Your task to perform on an android device: open app "Adobe Acrobat Reader: Edit PDF" Image 0: 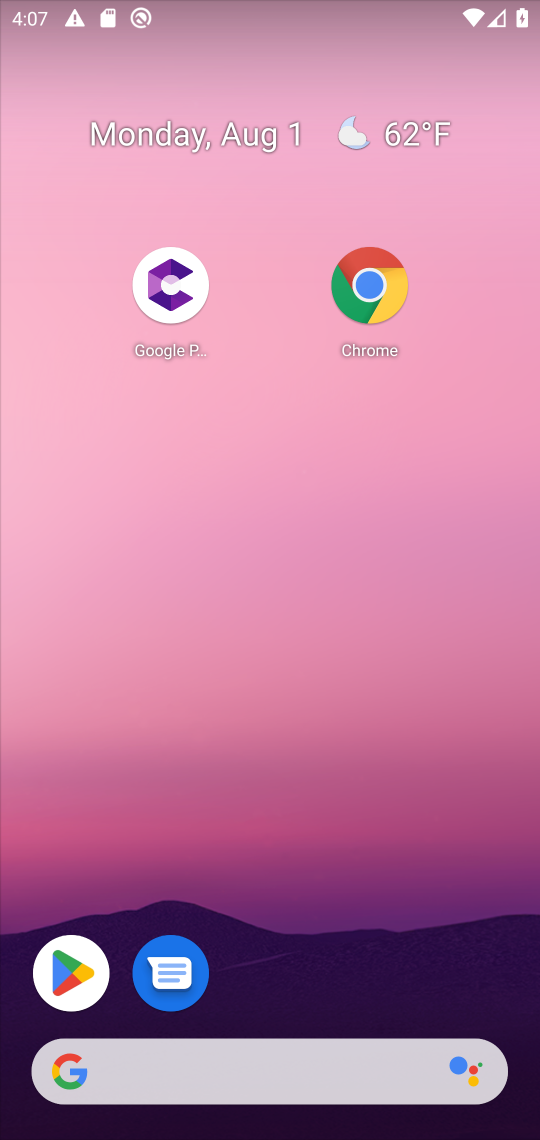
Step 0: drag from (381, 935) to (296, 213)
Your task to perform on an android device: open app "Adobe Acrobat Reader: Edit PDF" Image 1: 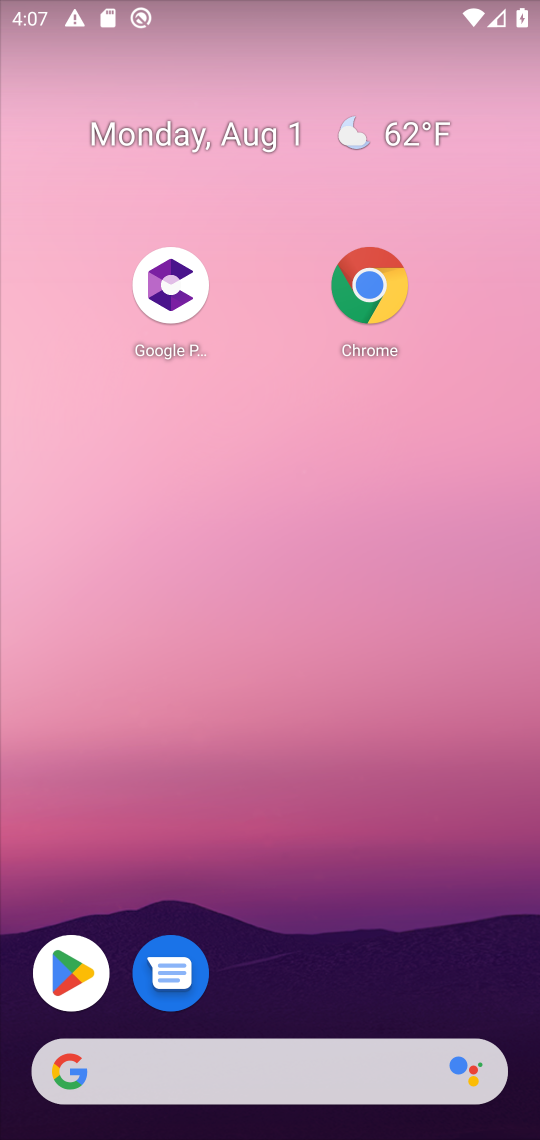
Step 1: drag from (319, 24) to (223, 329)
Your task to perform on an android device: open app "Adobe Acrobat Reader: Edit PDF" Image 2: 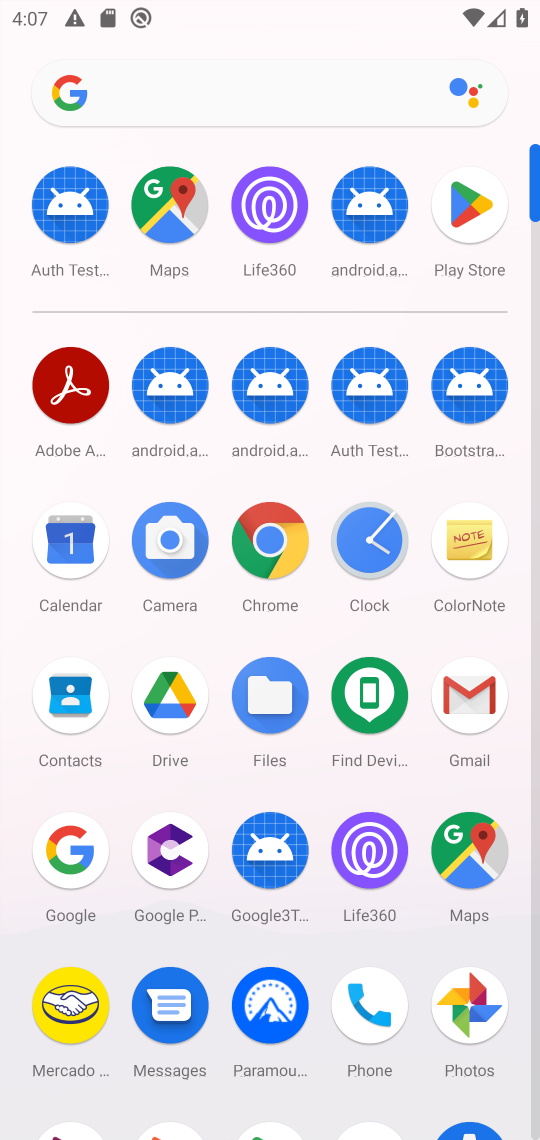
Step 2: click (478, 197)
Your task to perform on an android device: open app "Adobe Acrobat Reader: Edit PDF" Image 3: 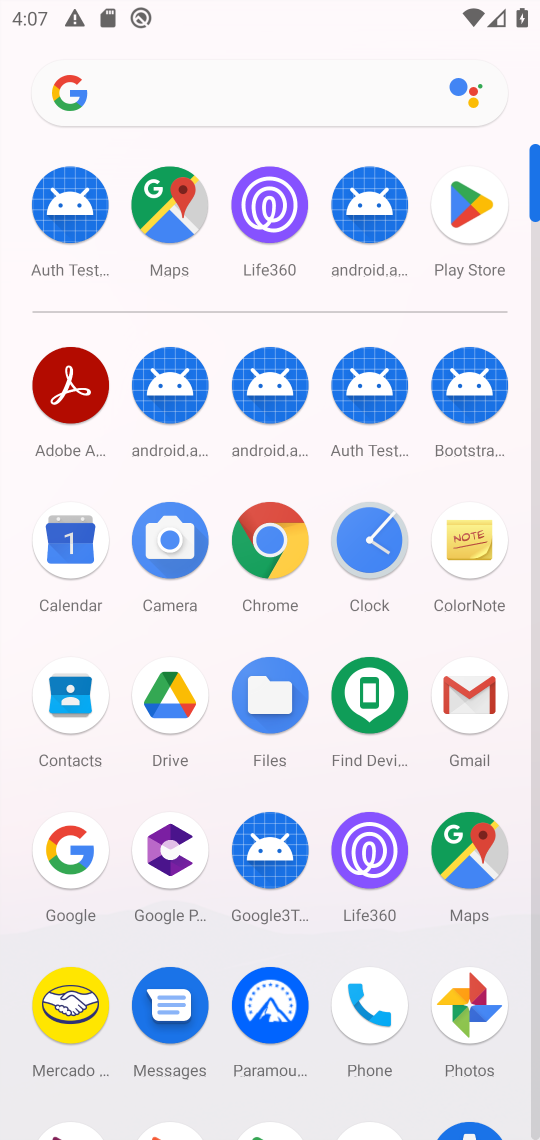
Step 3: click (480, 196)
Your task to perform on an android device: open app "Adobe Acrobat Reader: Edit PDF" Image 4: 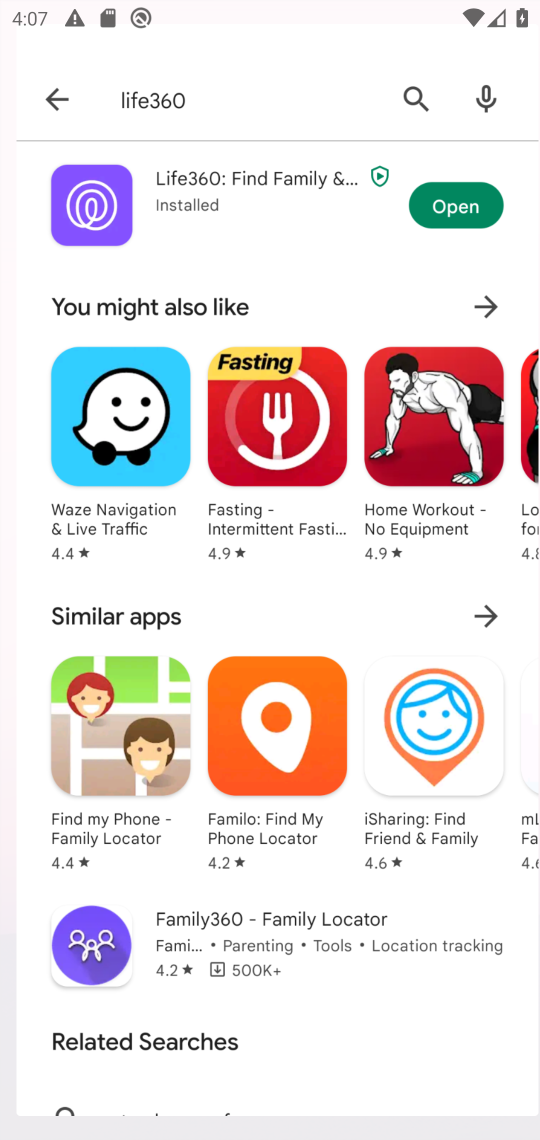
Step 4: click (470, 196)
Your task to perform on an android device: open app "Adobe Acrobat Reader: Edit PDF" Image 5: 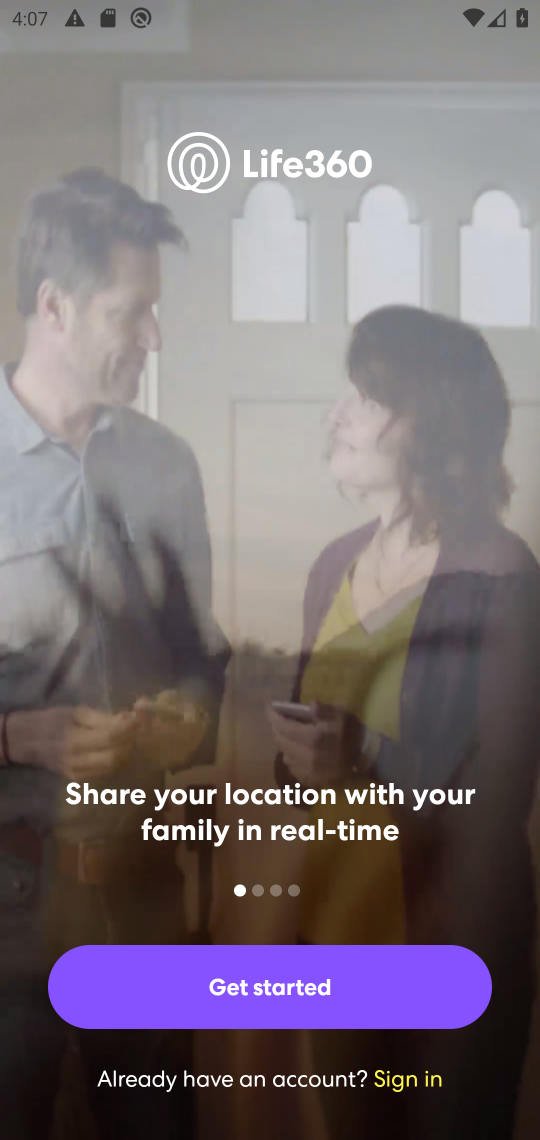
Step 5: press back button
Your task to perform on an android device: open app "Adobe Acrobat Reader: Edit PDF" Image 6: 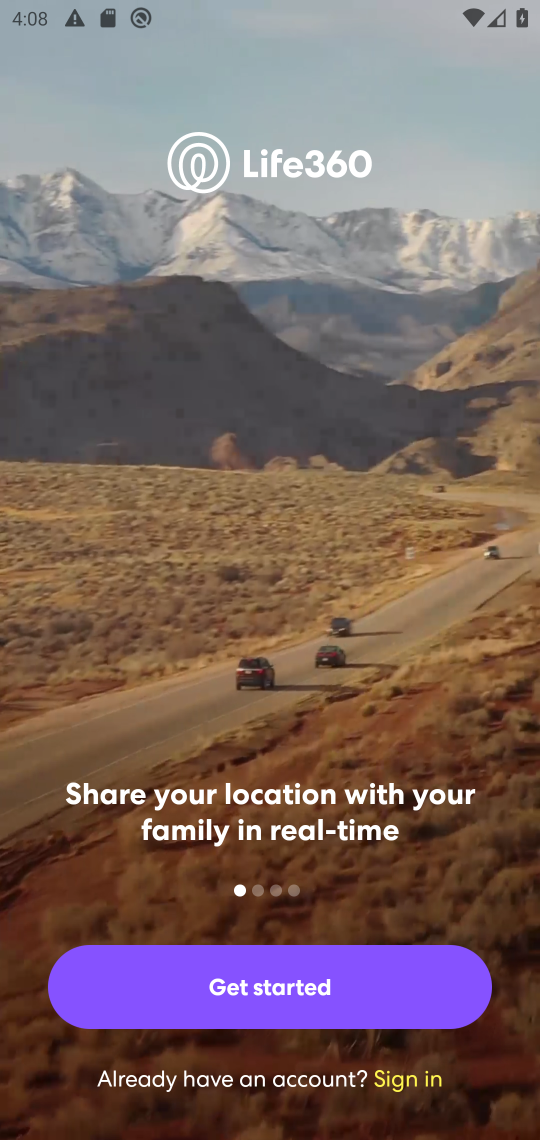
Step 6: press back button
Your task to perform on an android device: open app "Adobe Acrobat Reader: Edit PDF" Image 7: 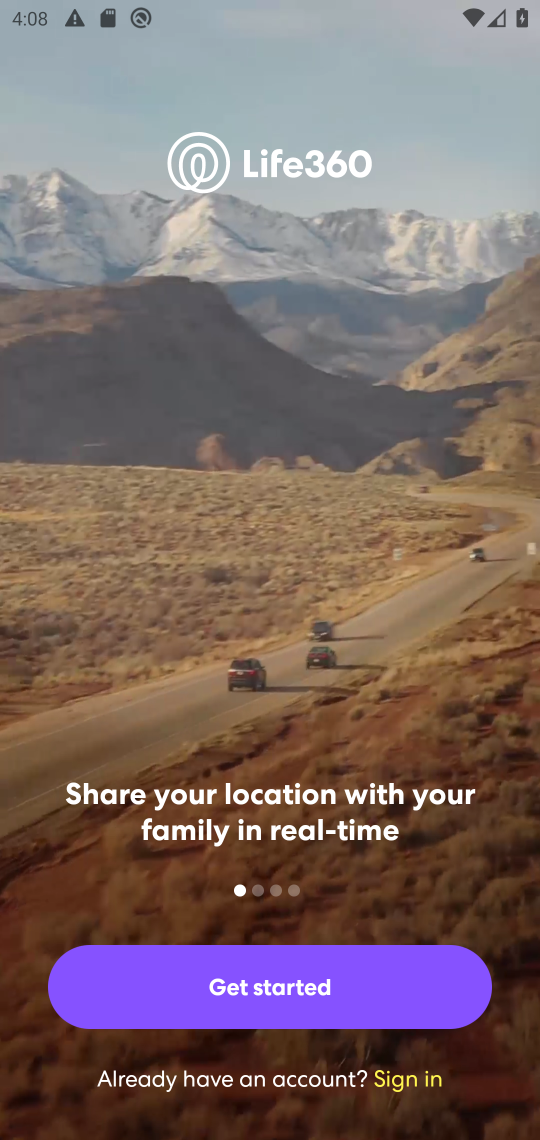
Step 7: press home button
Your task to perform on an android device: open app "Adobe Acrobat Reader: Edit PDF" Image 8: 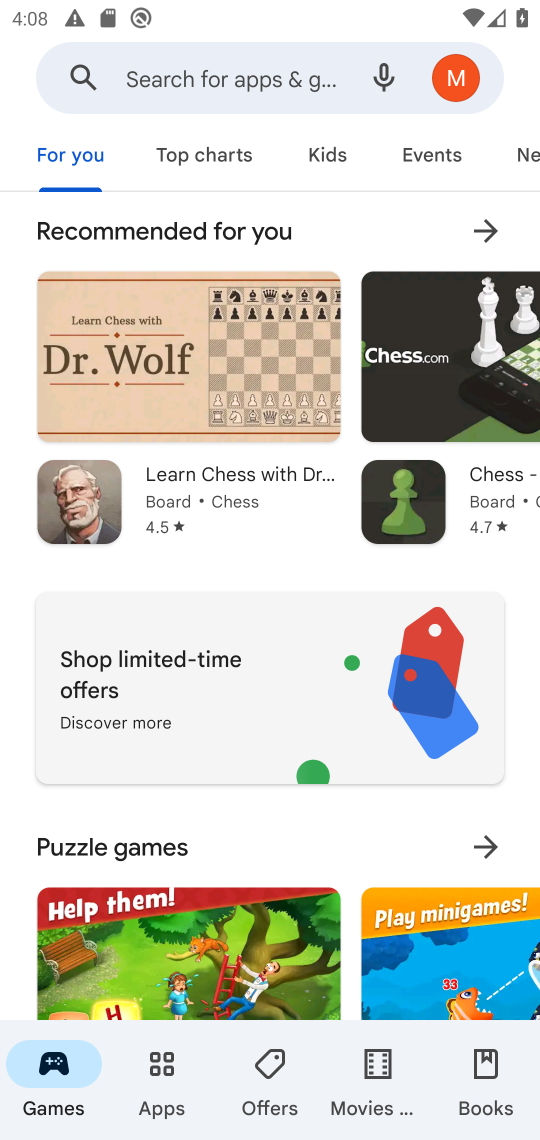
Step 8: press back button
Your task to perform on an android device: open app "Adobe Acrobat Reader: Edit PDF" Image 9: 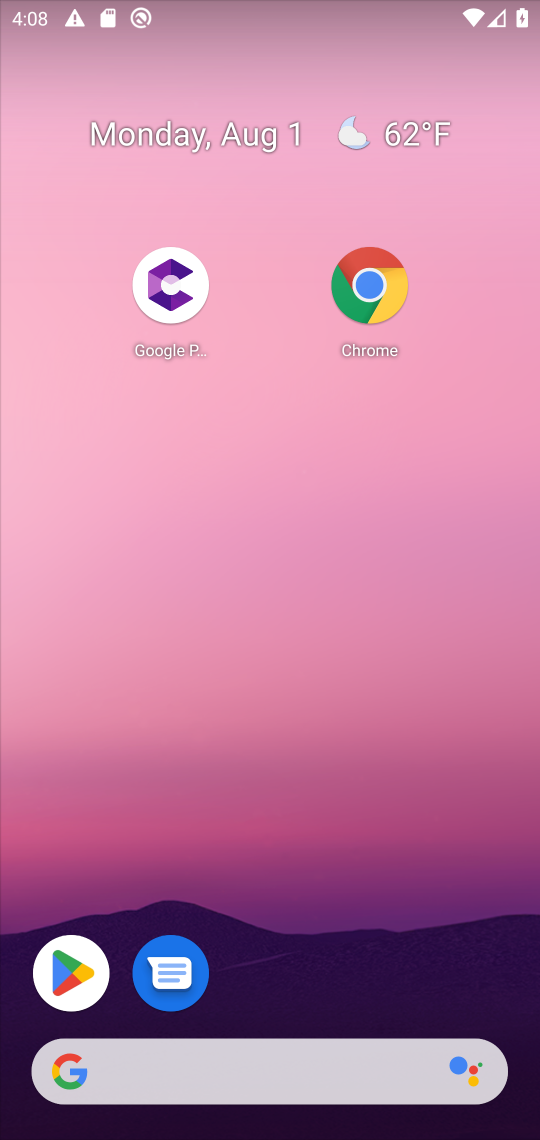
Step 9: press back button
Your task to perform on an android device: open app "Adobe Acrobat Reader: Edit PDF" Image 10: 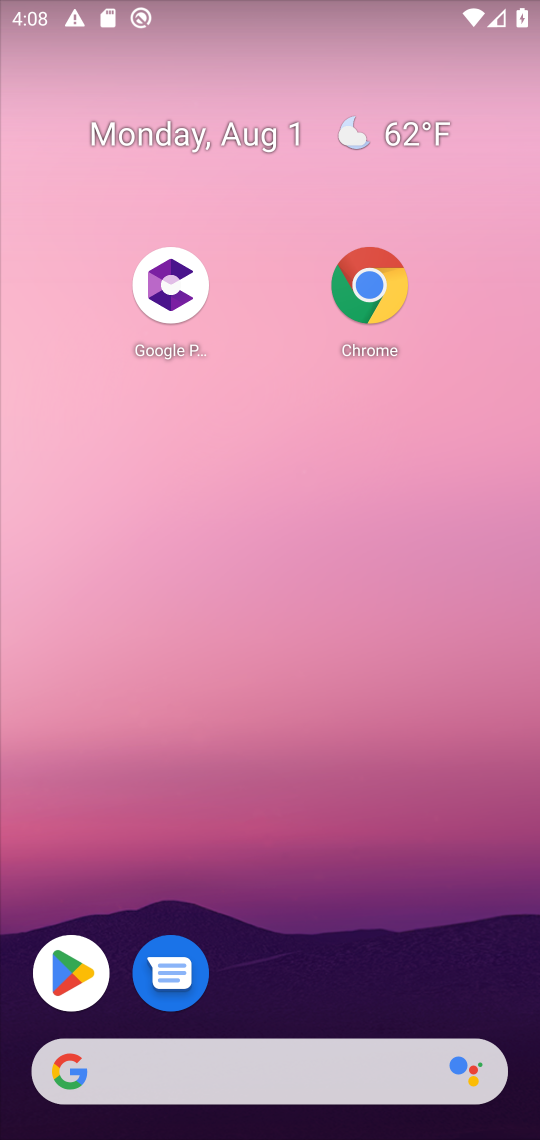
Step 10: drag from (199, 811) to (266, 125)
Your task to perform on an android device: open app "Adobe Acrobat Reader: Edit PDF" Image 11: 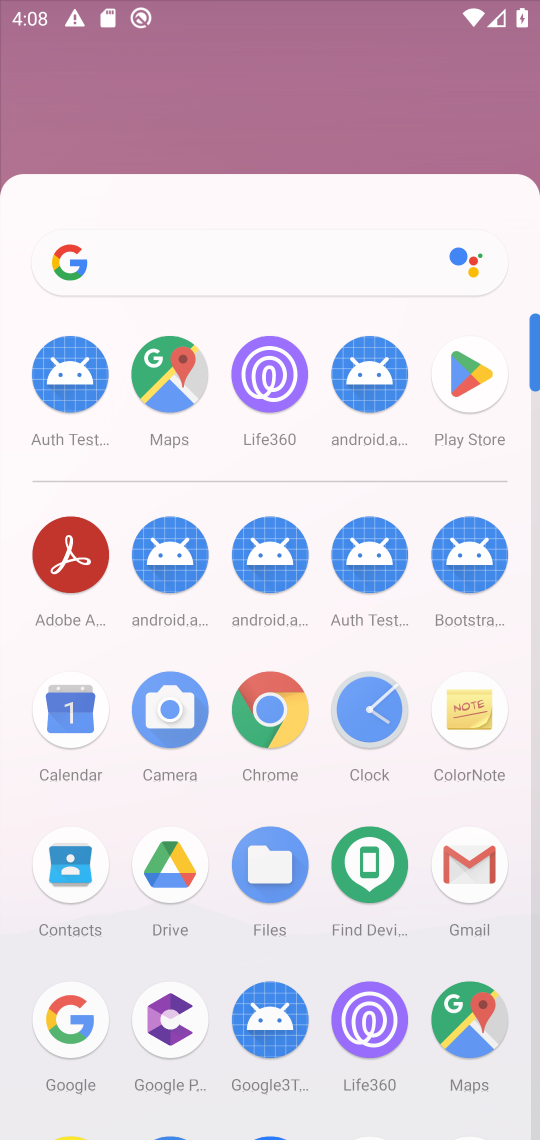
Step 11: drag from (234, 728) to (225, 132)
Your task to perform on an android device: open app "Adobe Acrobat Reader: Edit PDF" Image 12: 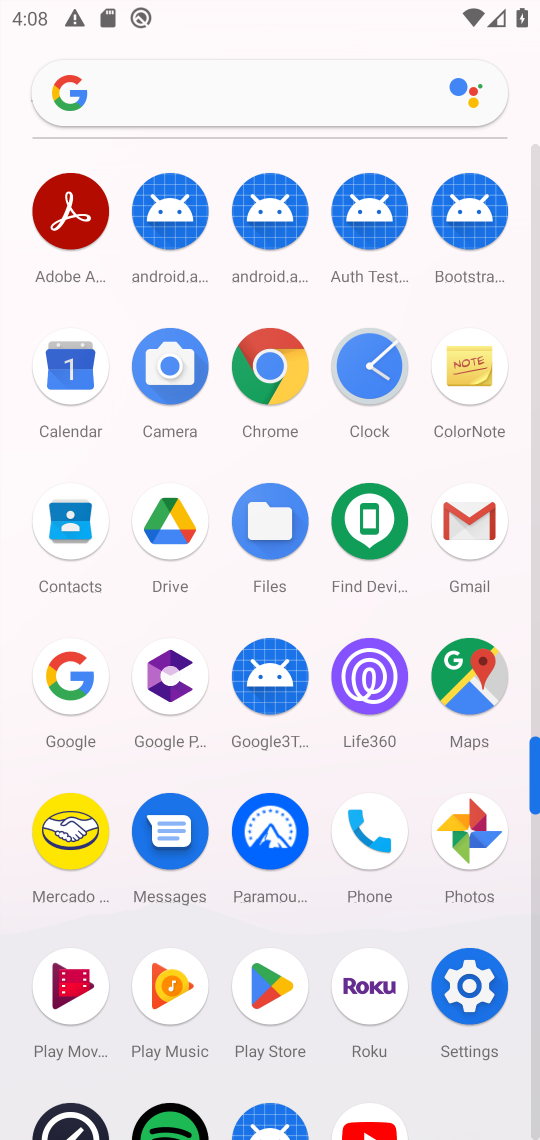
Step 12: drag from (359, 766) to (257, 182)
Your task to perform on an android device: open app "Adobe Acrobat Reader: Edit PDF" Image 13: 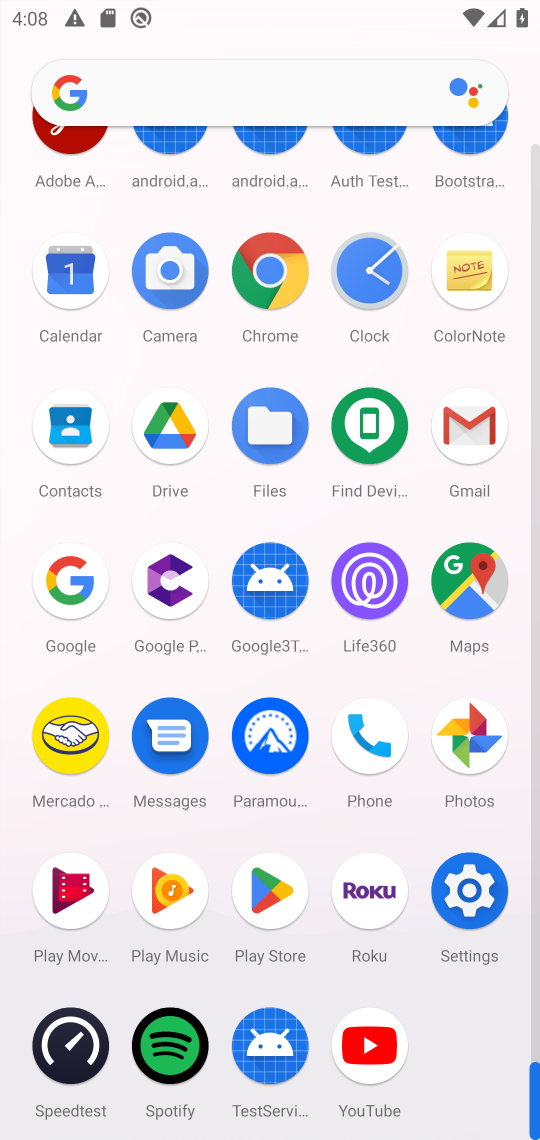
Step 13: click (254, 888)
Your task to perform on an android device: open app "Adobe Acrobat Reader: Edit PDF" Image 14: 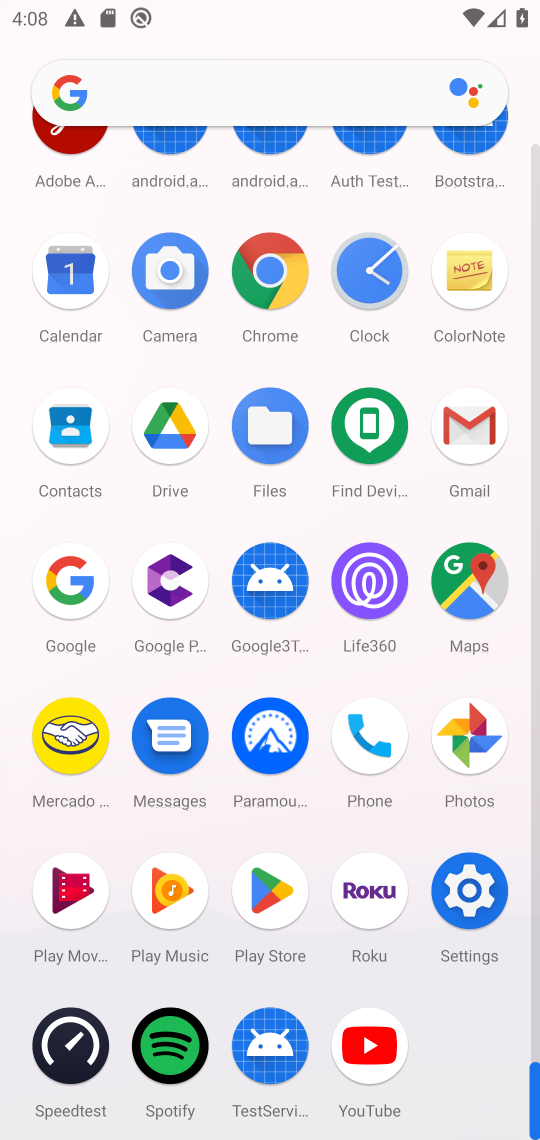
Step 14: click (254, 890)
Your task to perform on an android device: open app "Adobe Acrobat Reader: Edit PDF" Image 15: 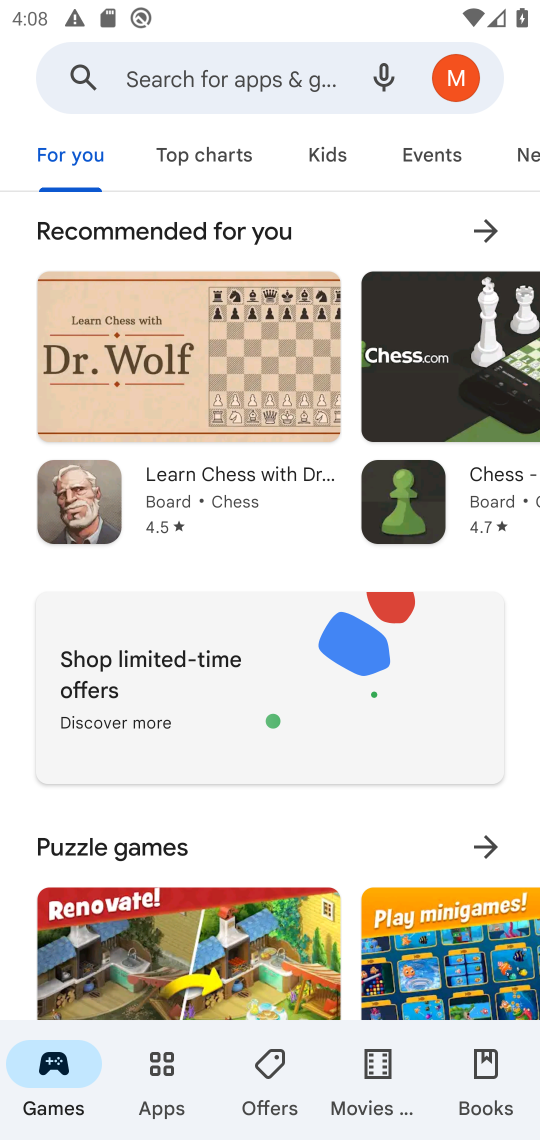
Step 15: click (154, 82)
Your task to perform on an android device: open app "Adobe Acrobat Reader: Edit PDF" Image 16: 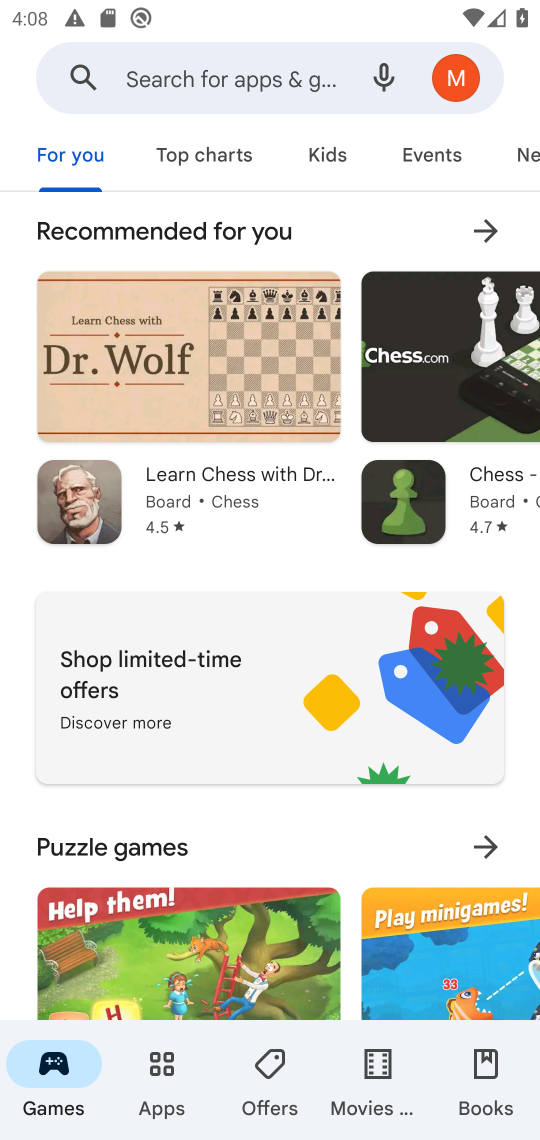
Step 16: click (154, 83)
Your task to perform on an android device: open app "Adobe Acrobat Reader: Edit PDF" Image 17: 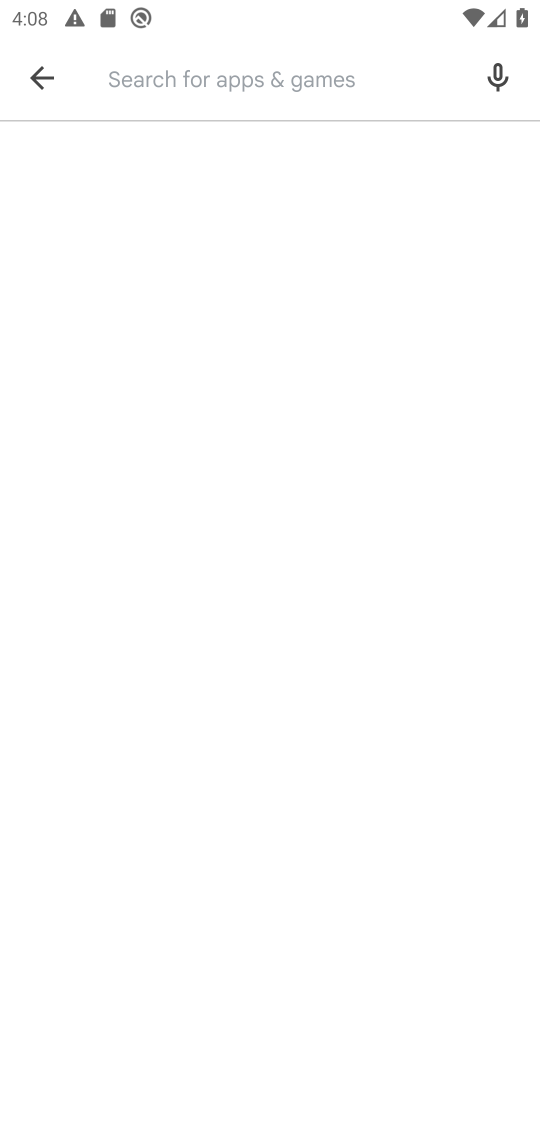
Step 17: click (154, 83)
Your task to perform on an android device: open app "Adobe Acrobat Reader: Edit PDF" Image 18: 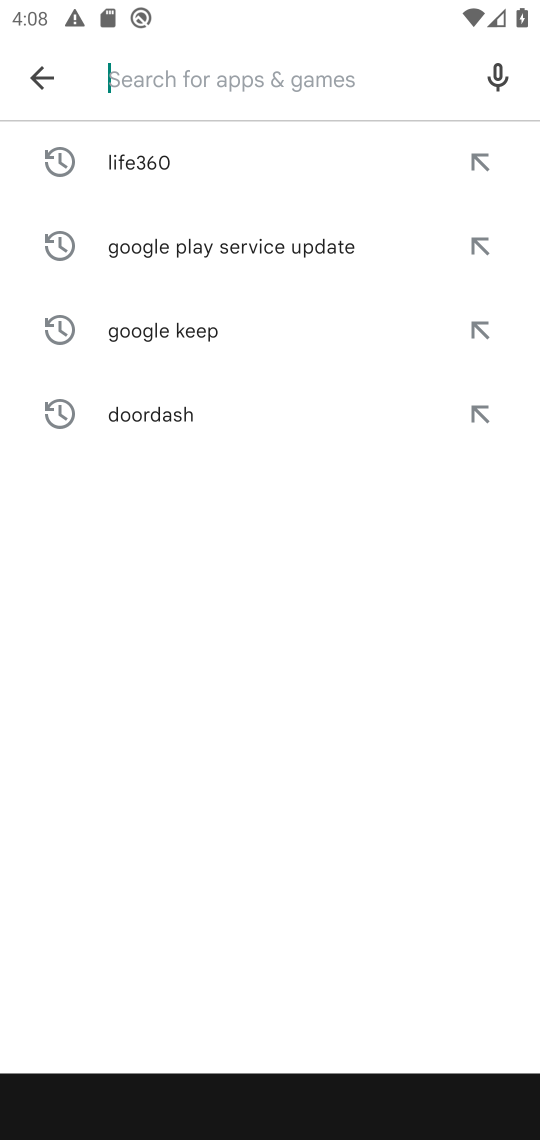
Step 18: click (154, 83)
Your task to perform on an android device: open app "Adobe Acrobat Reader: Edit PDF" Image 19: 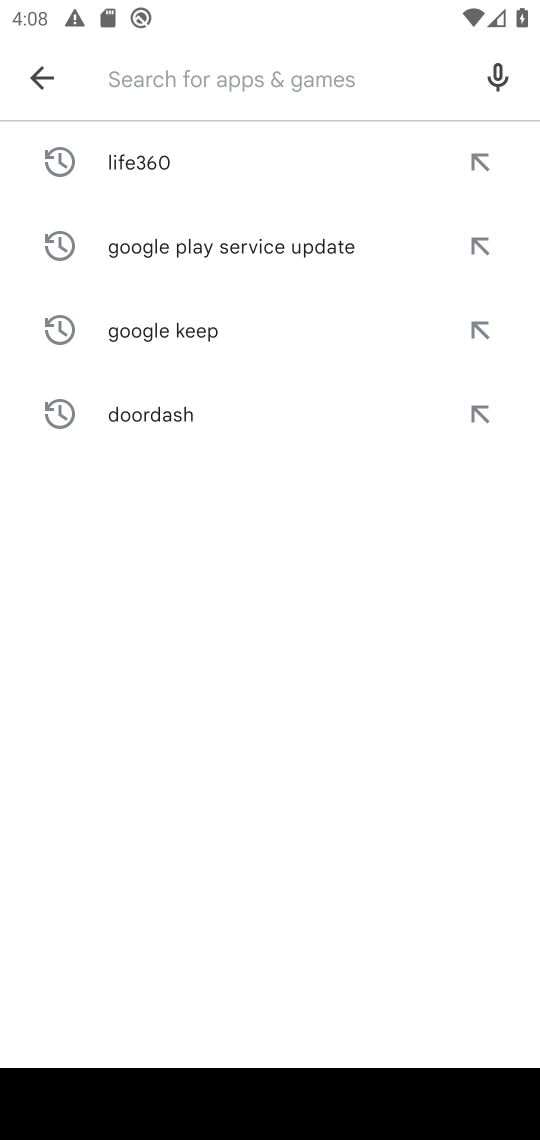
Step 19: type "adobe acrobat reader"
Your task to perform on an android device: open app "Adobe Acrobat Reader: Edit PDF" Image 20: 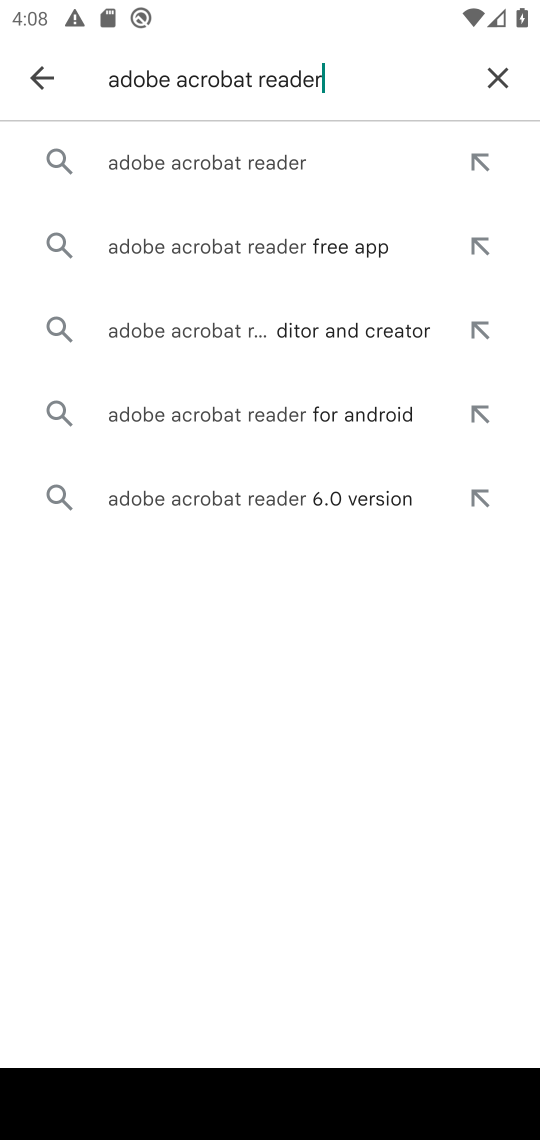
Step 20: click (201, 159)
Your task to perform on an android device: open app "Adobe Acrobat Reader: Edit PDF" Image 21: 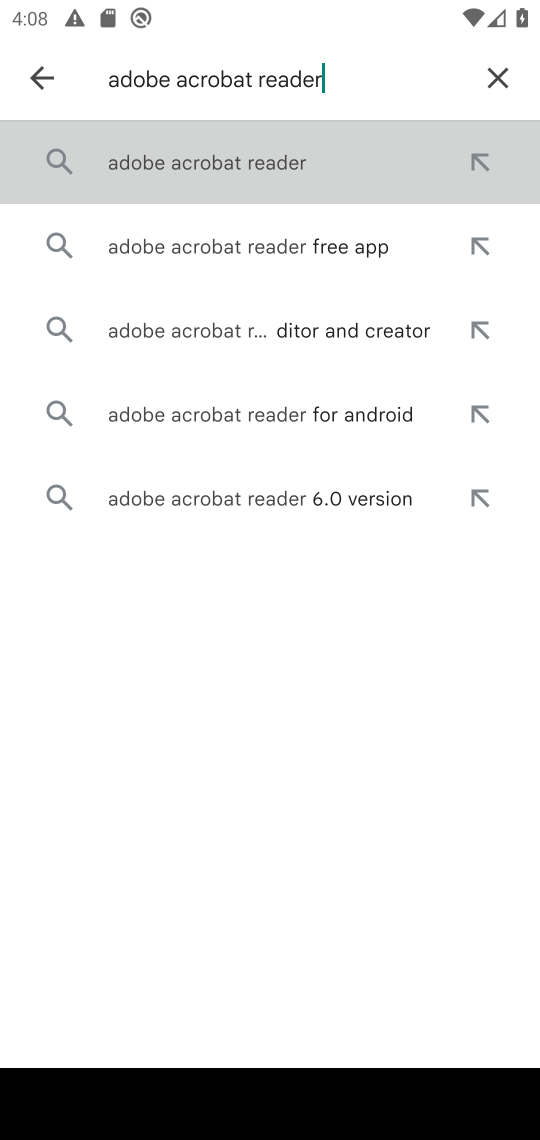
Step 21: click (201, 159)
Your task to perform on an android device: open app "Adobe Acrobat Reader: Edit PDF" Image 22: 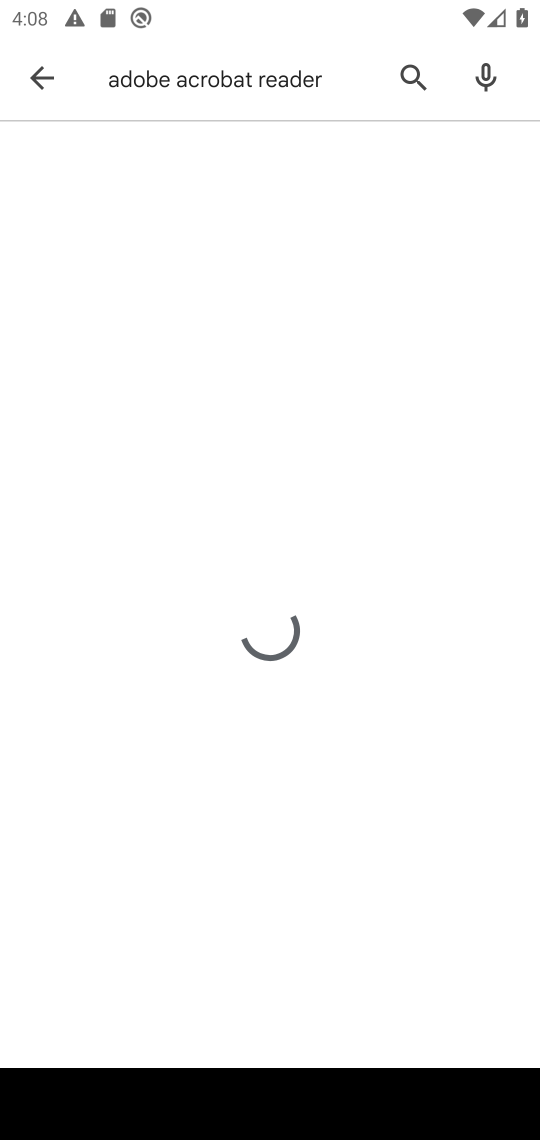
Step 22: click (201, 159)
Your task to perform on an android device: open app "Adobe Acrobat Reader: Edit PDF" Image 23: 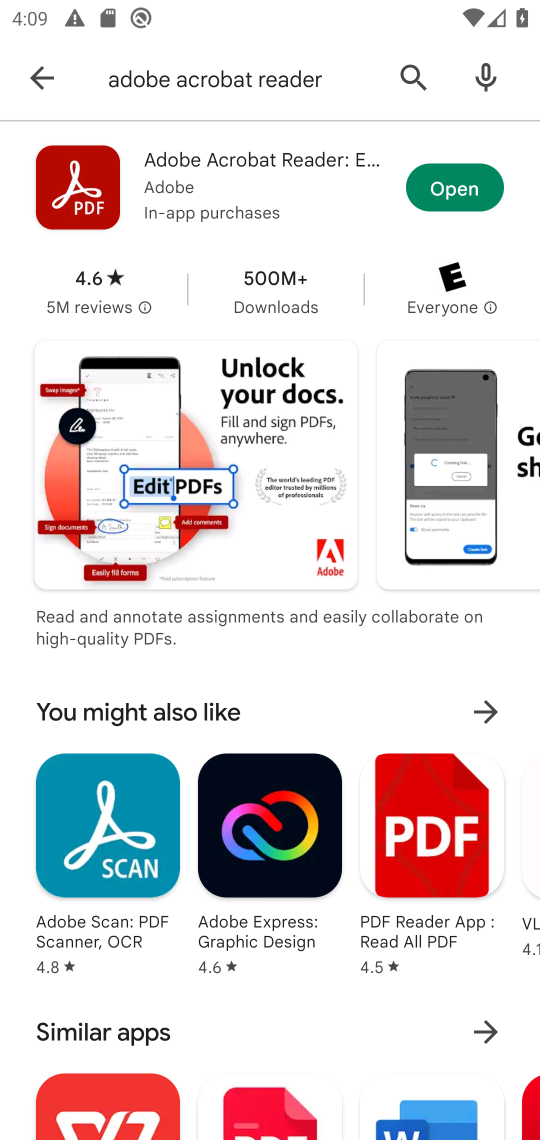
Step 23: click (428, 181)
Your task to perform on an android device: open app "Adobe Acrobat Reader: Edit PDF" Image 24: 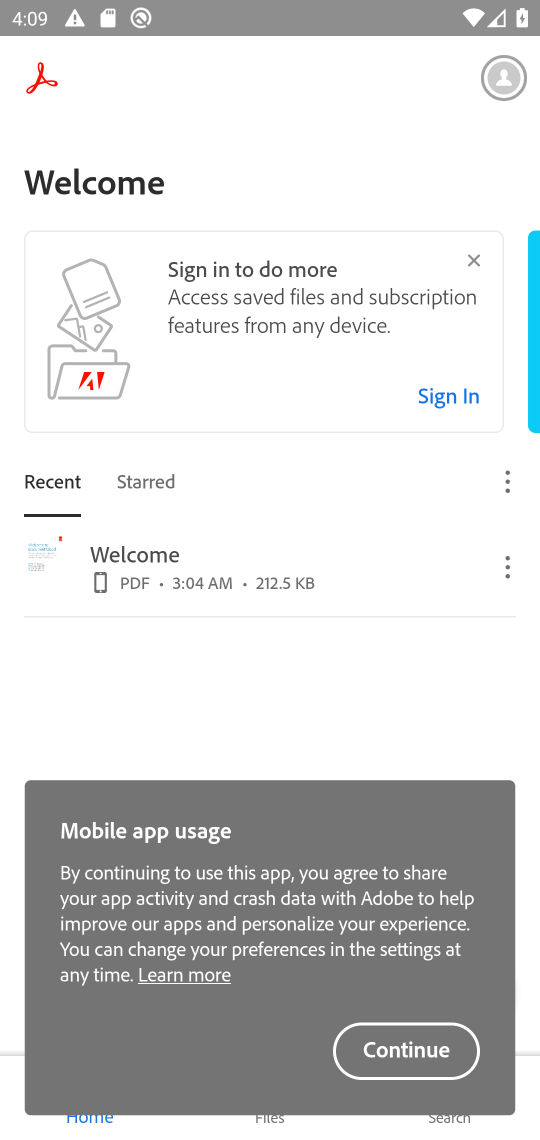
Step 24: task complete